Your task to perform on an android device: Open settings Image 0: 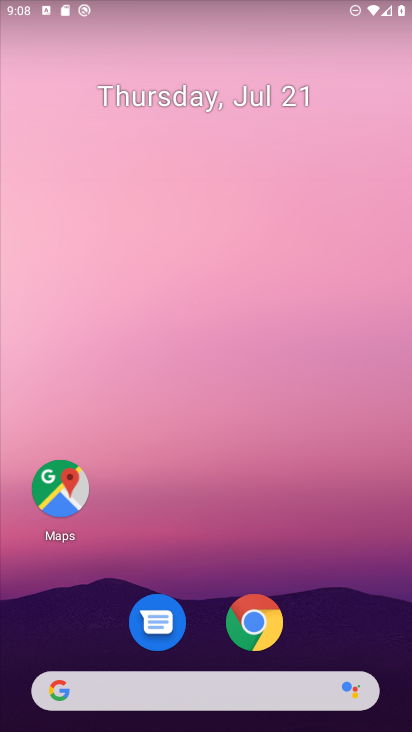
Step 0: drag from (190, 558) to (195, 2)
Your task to perform on an android device: Open settings Image 1: 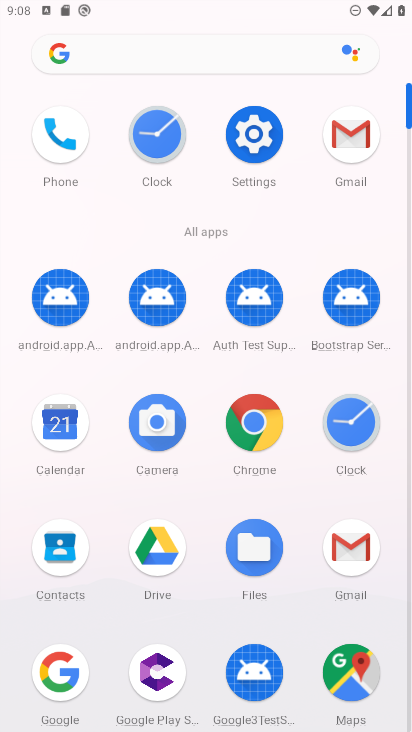
Step 1: click (245, 147)
Your task to perform on an android device: Open settings Image 2: 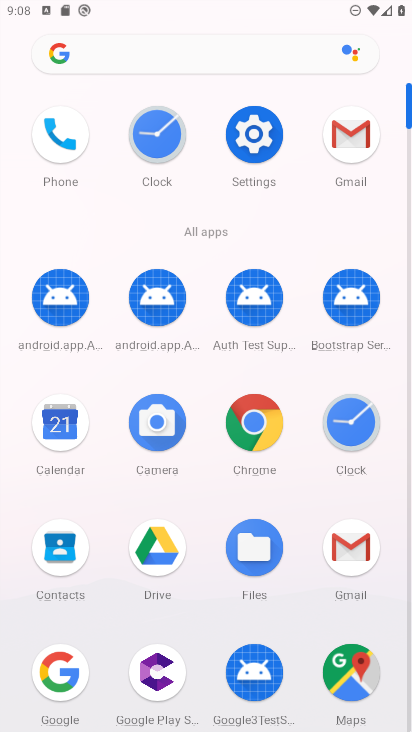
Step 2: click (245, 147)
Your task to perform on an android device: Open settings Image 3: 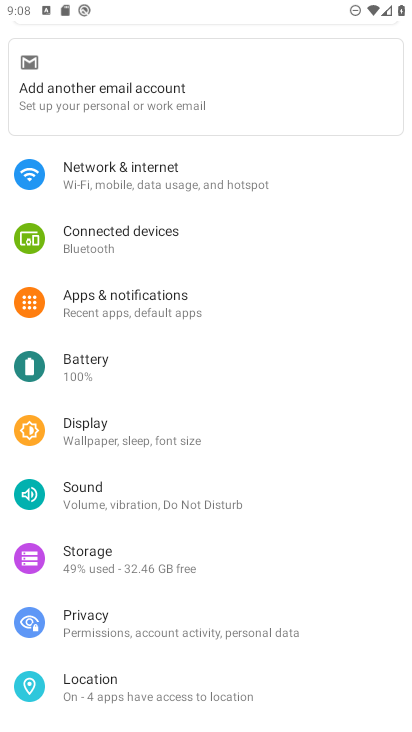
Step 3: task complete